Your task to perform on an android device: open app "Upside-Cash back on gas & food" (install if not already installed) Image 0: 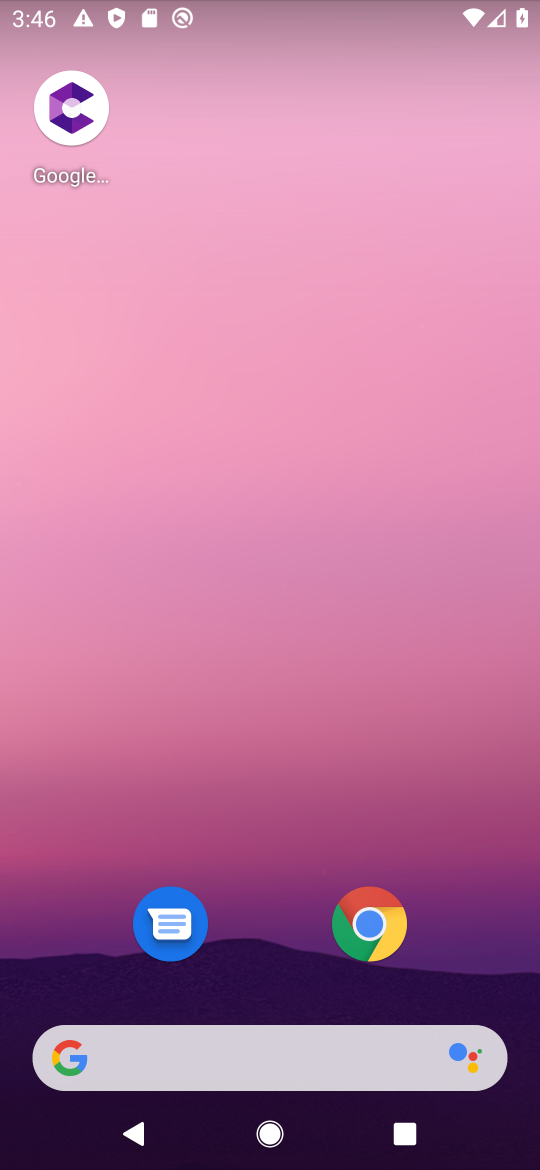
Step 0: drag from (452, 781) to (446, 2)
Your task to perform on an android device: open app "Upside-Cash back on gas & food" (install if not already installed) Image 1: 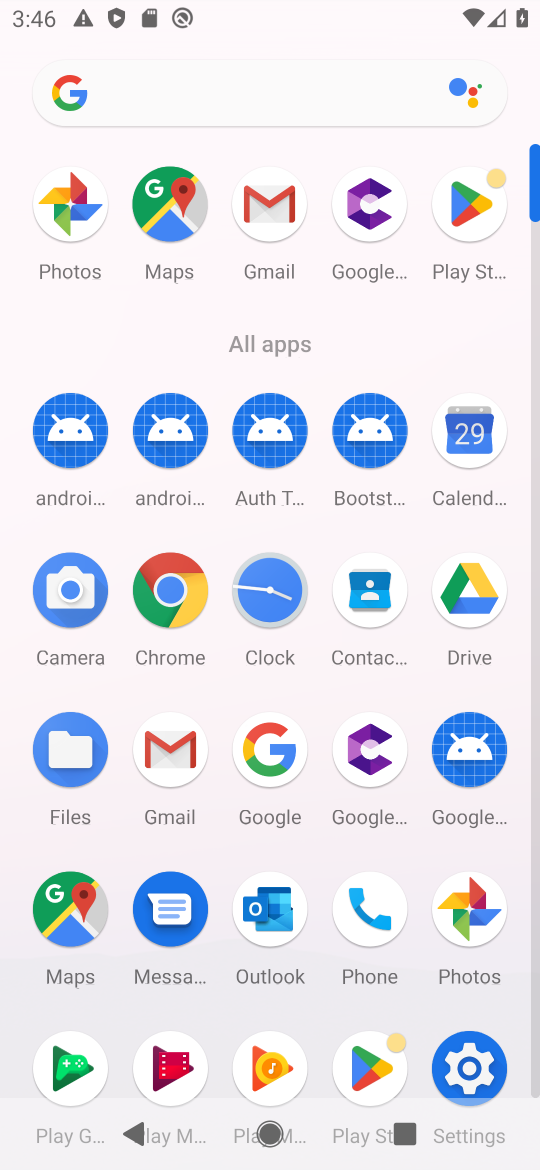
Step 1: click (454, 218)
Your task to perform on an android device: open app "Upside-Cash back on gas & food" (install if not already installed) Image 2: 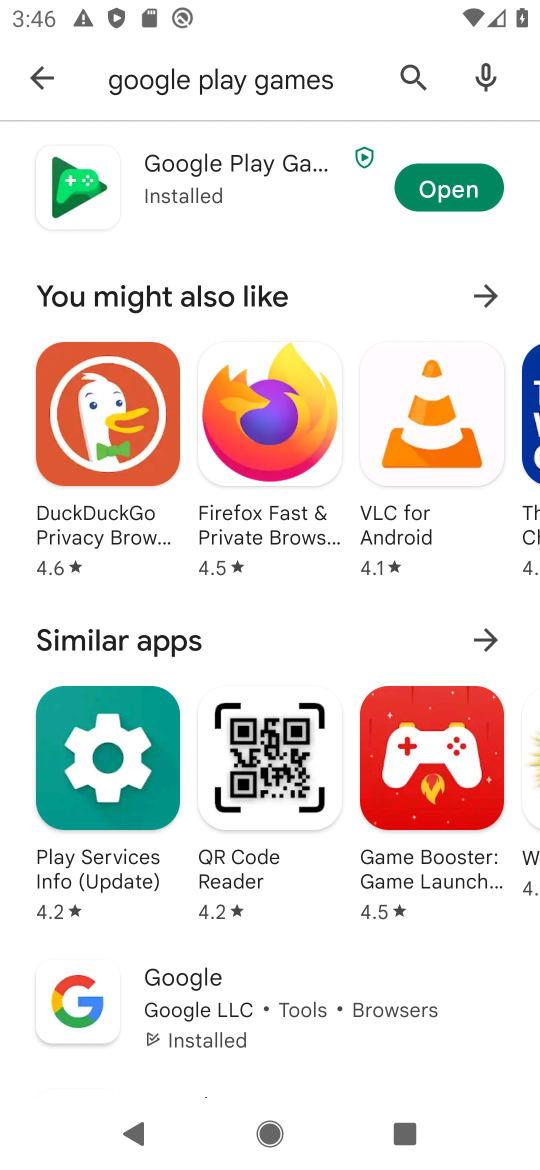
Step 2: click (412, 77)
Your task to perform on an android device: open app "Upside-Cash back on gas & food" (install if not already installed) Image 3: 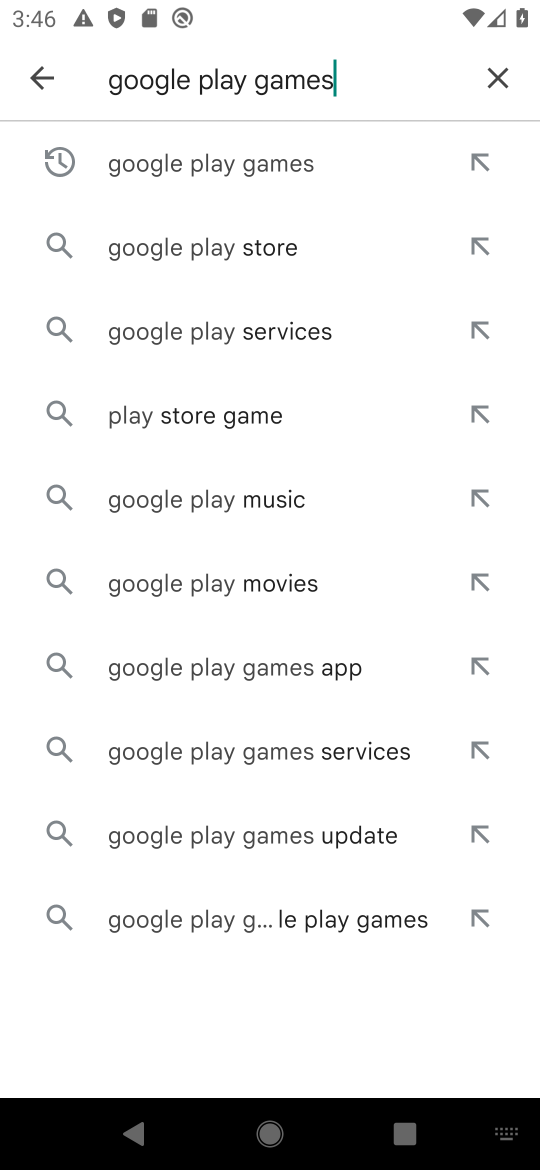
Step 3: click (497, 80)
Your task to perform on an android device: open app "Upside-Cash back on gas & food" (install if not already installed) Image 4: 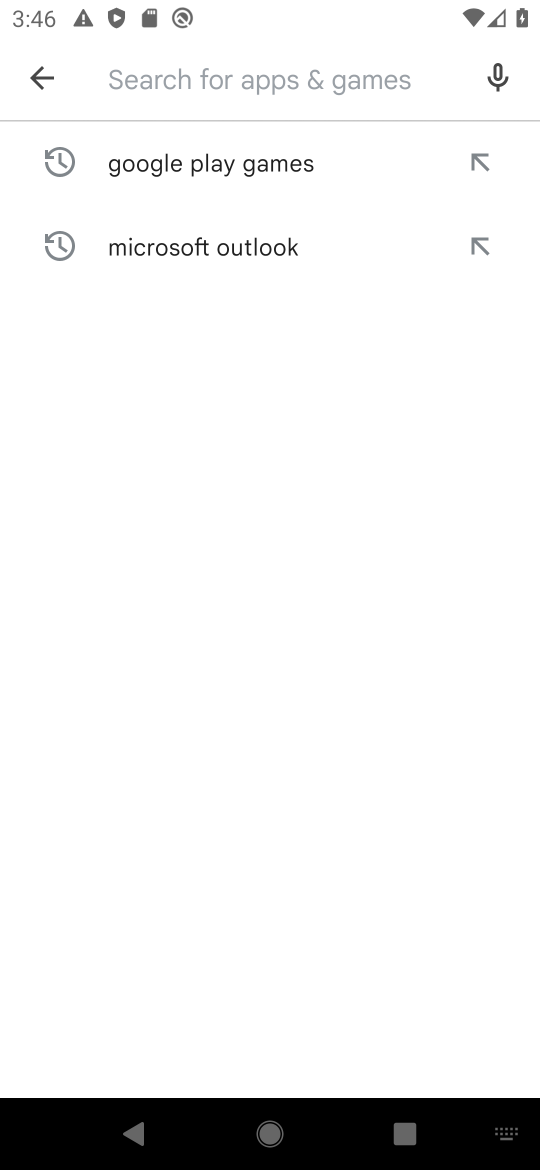
Step 4: type "Upside-Cash back on gas & food"
Your task to perform on an android device: open app "Upside-Cash back on gas & food" (install if not already installed) Image 5: 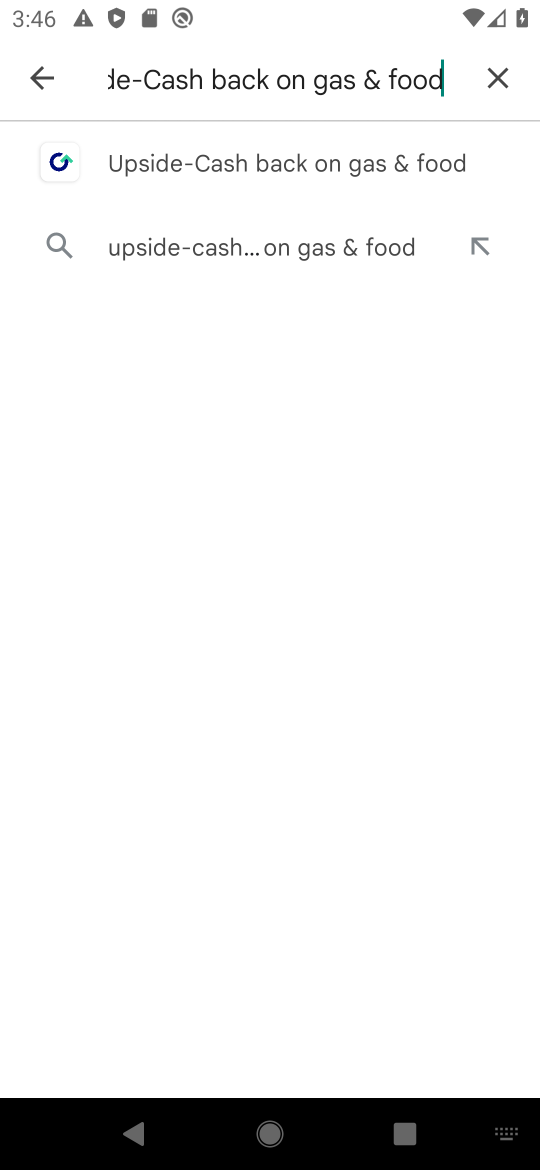
Step 5: click (164, 159)
Your task to perform on an android device: open app "Upside-Cash back on gas & food" (install if not already installed) Image 6: 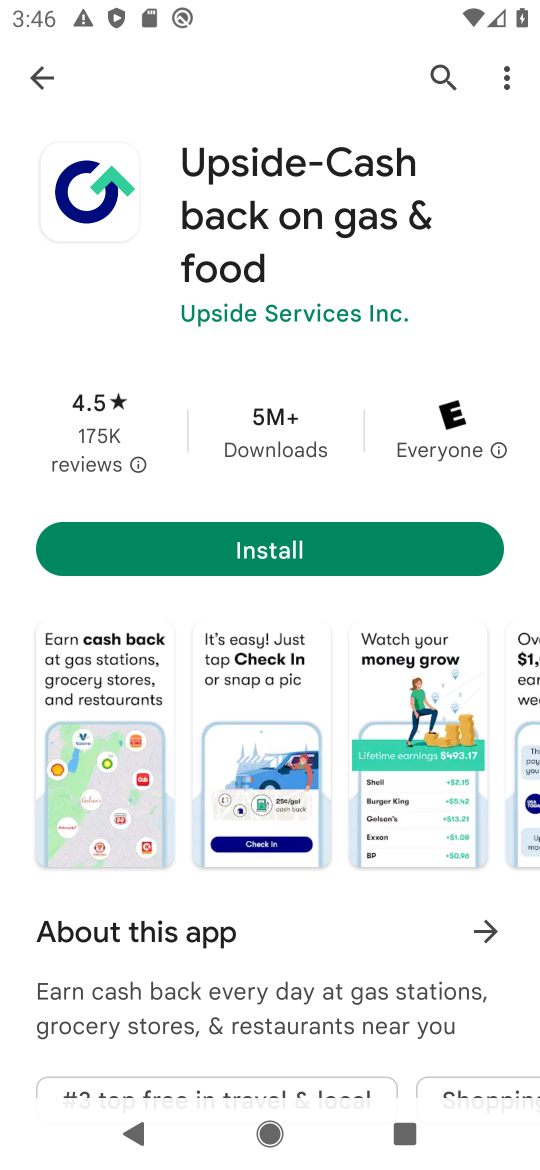
Step 6: click (241, 544)
Your task to perform on an android device: open app "Upside-Cash back on gas & food" (install if not already installed) Image 7: 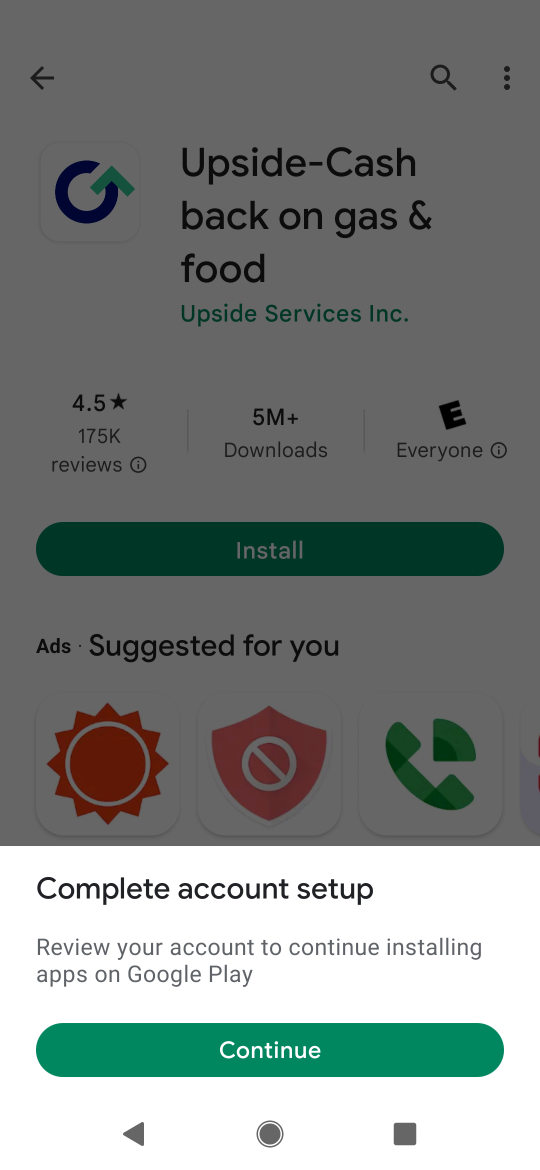
Step 7: click (263, 1042)
Your task to perform on an android device: open app "Upside-Cash back on gas & food" (install if not already installed) Image 8: 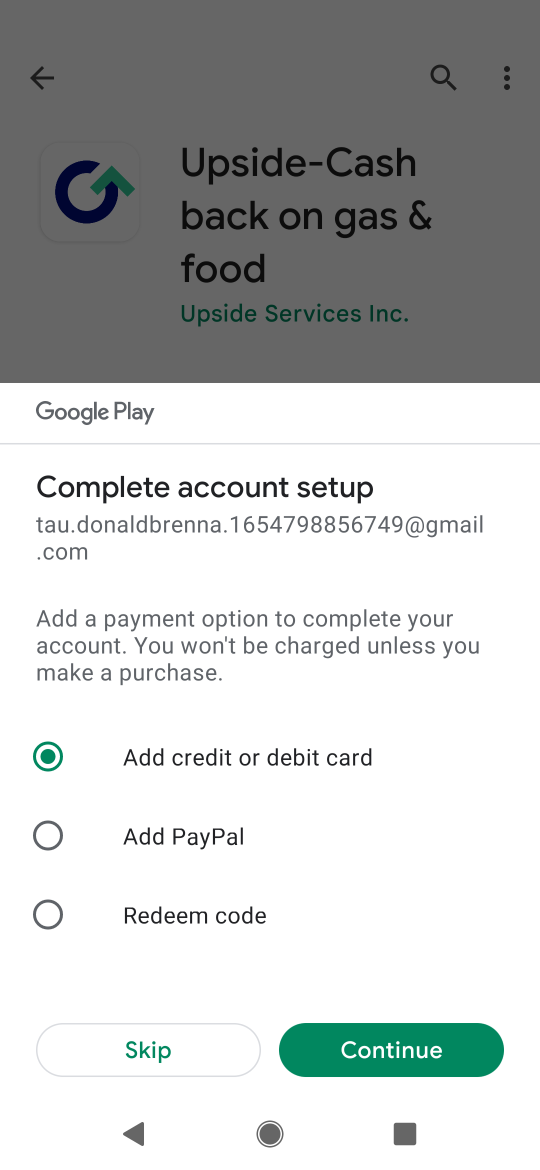
Step 8: click (159, 1053)
Your task to perform on an android device: open app "Upside-Cash back on gas & food" (install if not already installed) Image 9: 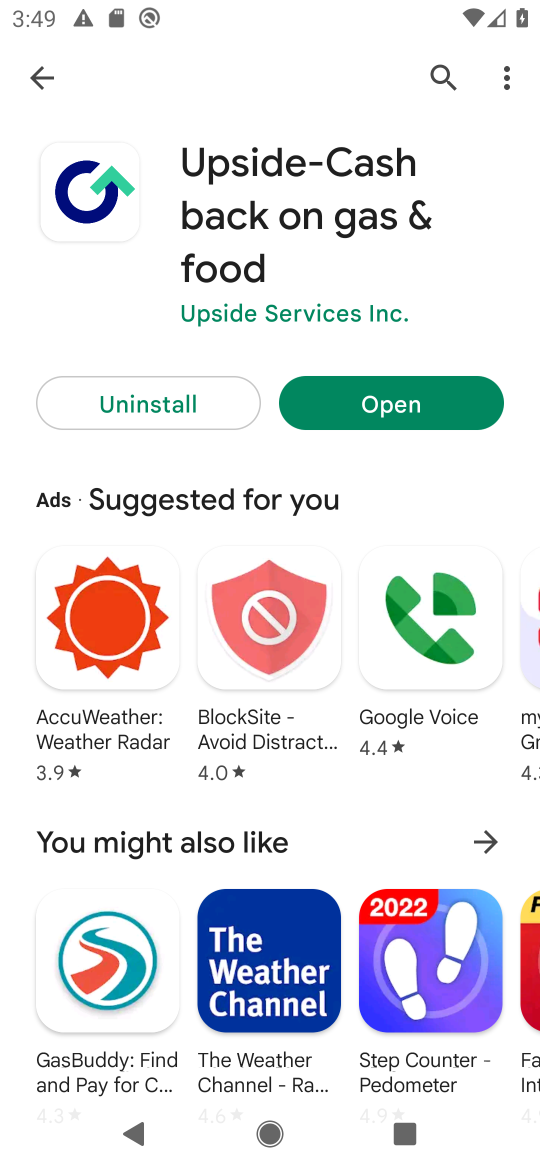
Step 9: click (347, 402)
Your task to perform on an android device: open app "Upside-Cash back on gas & food" (install if not already installed) Image 10: 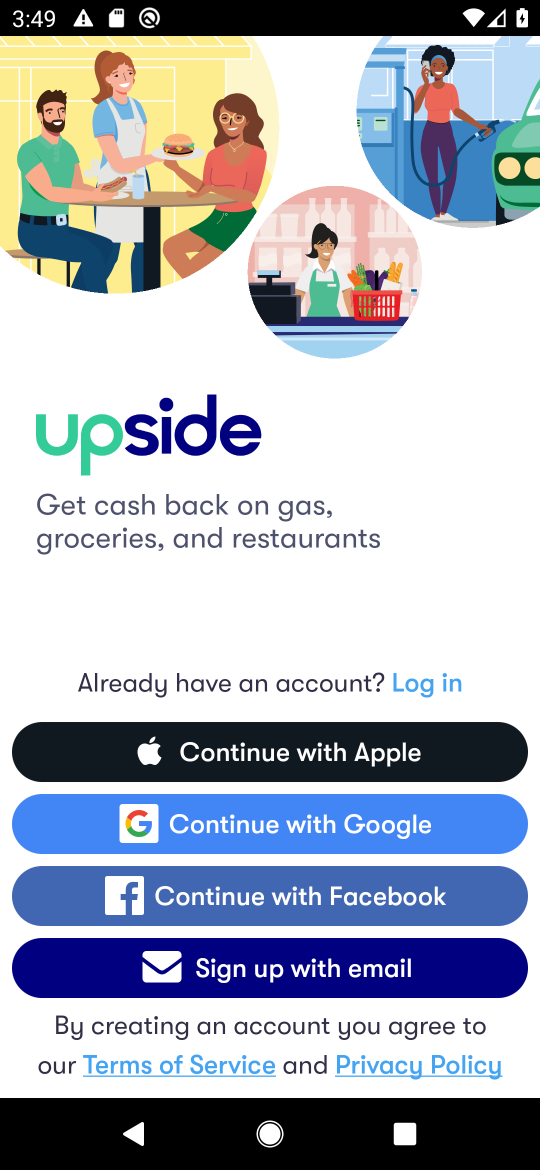
Step 10: task complete